Your task to perform on an android device: See recent photos Image 0: 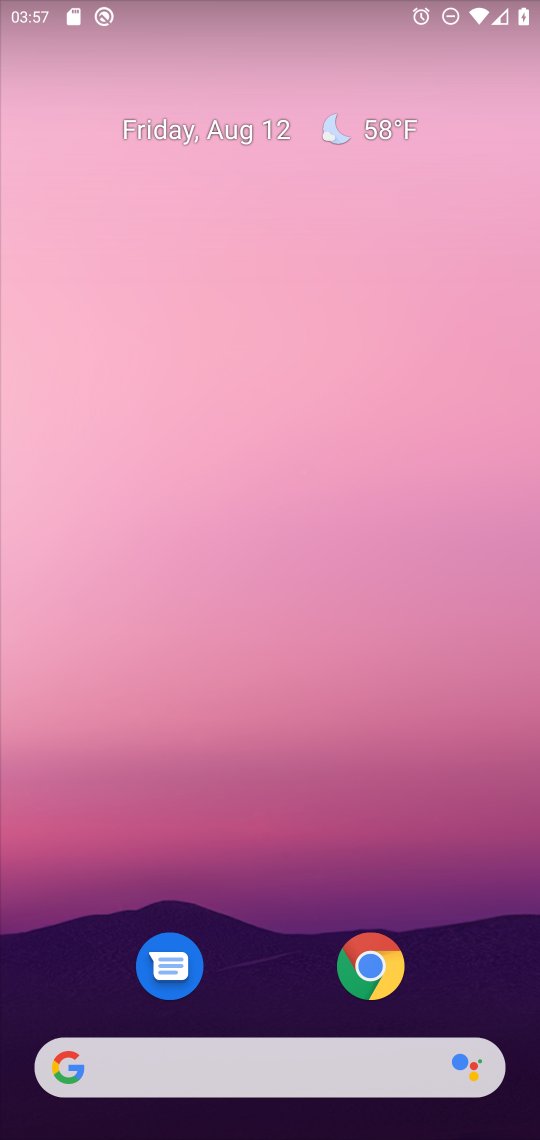
Step 0: drag from (271, 968) to (292, 95)
Your task to perform on an android device: See recent photos Image 1: 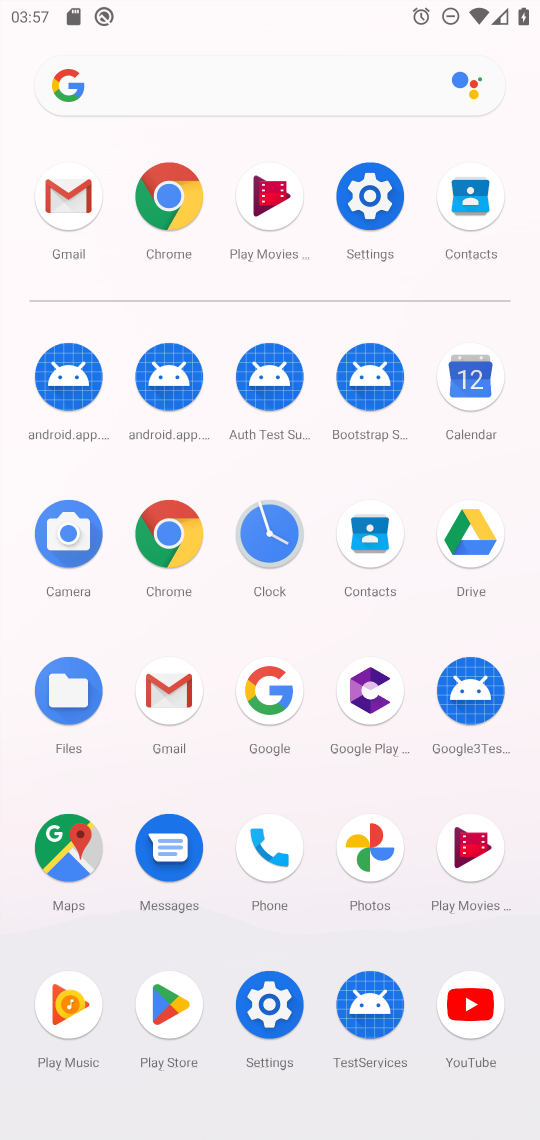
Step 1: click (364, 847)
Your task to perform on an android device: See recent photos Image 2: 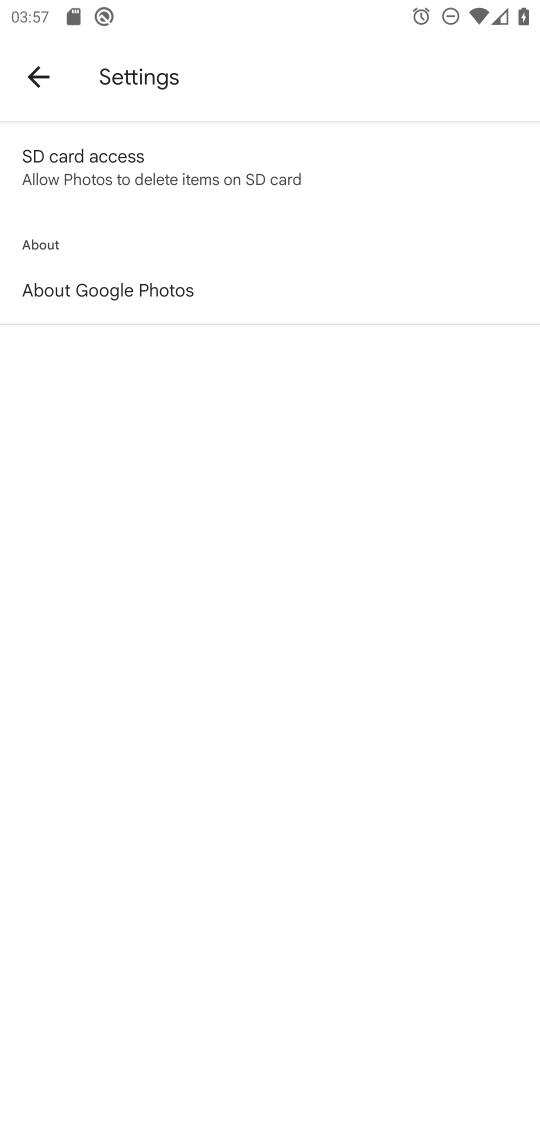
Step 2: click (26, 69)
Your task to perform on an android device: See recent photos Image 3: 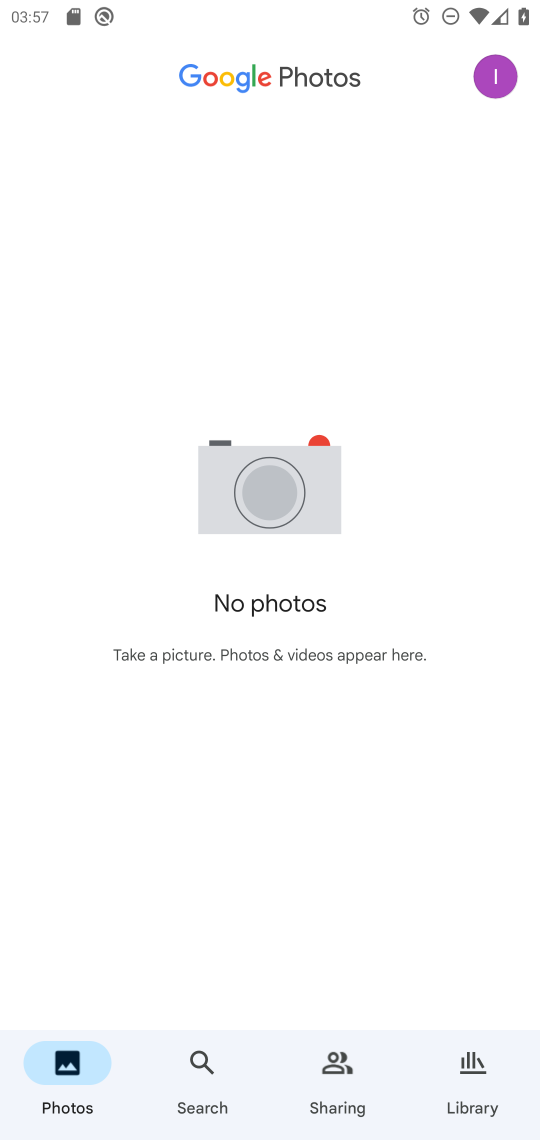
Step 3: task complete